Your task to perform on an android device: Open Google Chrome and click the shortcut for Amazon.com Image 0: 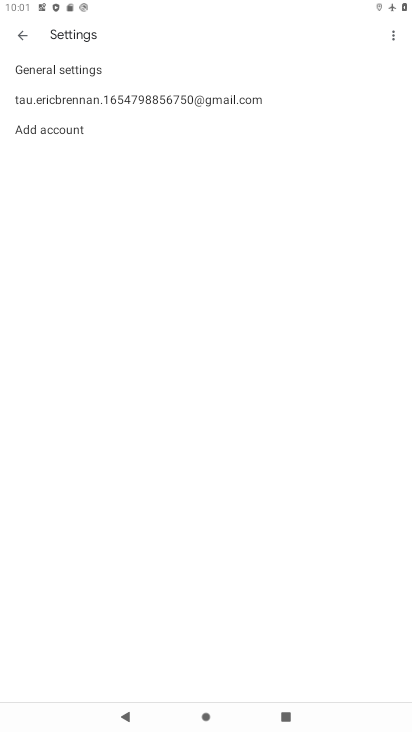
Step 0: press home button
Your task to perform on an android device: Open Google Chrome and click the shortcut for Amazon.com Image 1: 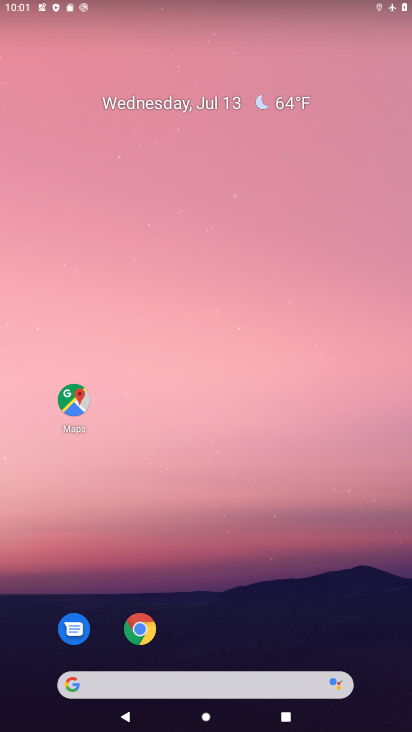
Step 1: click (137, 626)
Your task to perform on an android device: Open Google Chrome and click the shortcut for Amazon.com Image 2: 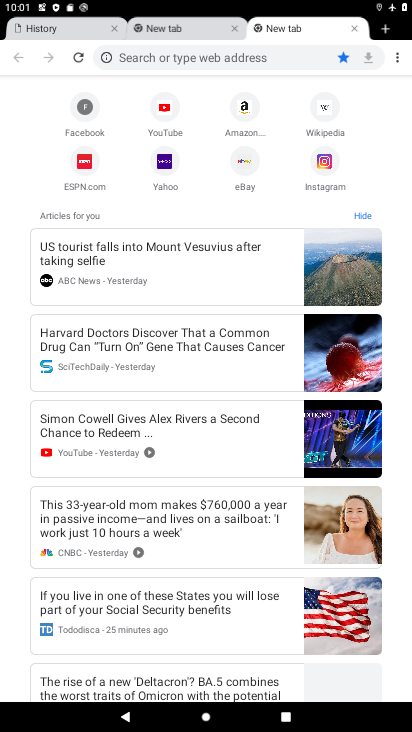
Step 2: click (252, 104)
Your task to perform on an android device: Open Google Chrome and click the shortcut for Amazon.com Image 3: 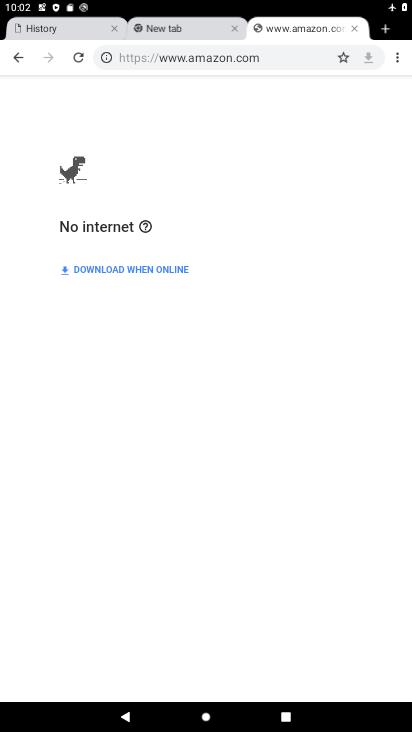
Step 3: task complete